Your task to perform on an android device: turn off smart reply in the gmail app Image 0: 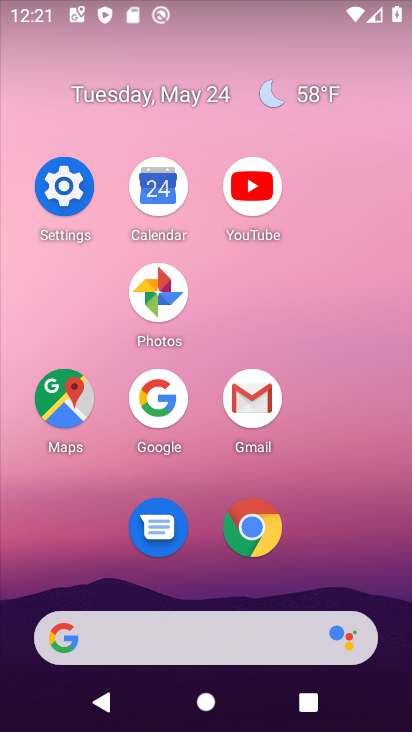
Step 0: click (247, 397)
Your task to perform on an android device: turn off smart reply in the gmail app Image 1: 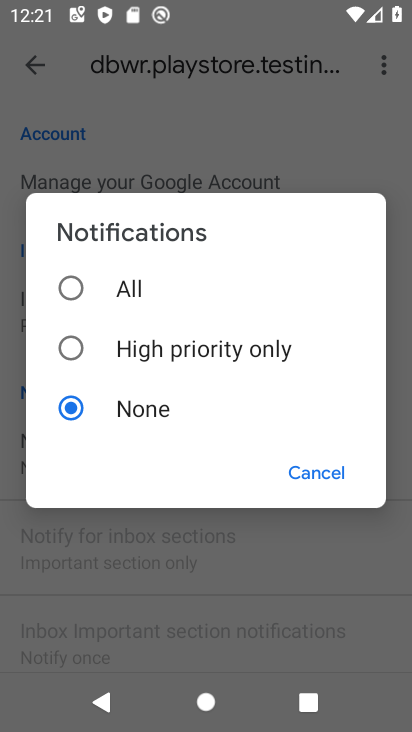
Step 1: click (338, 472)
Your task to perform on an android device: turn off smart reply in the gmail app Image 2: 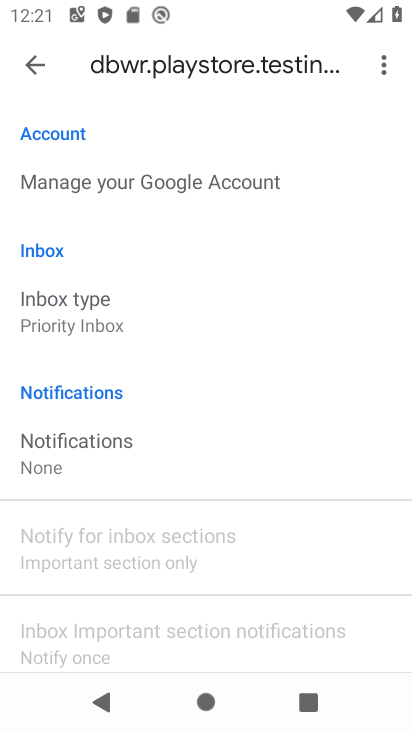
Step 2: task complete